Your task to perform on an android device: change the clock style Image 0: 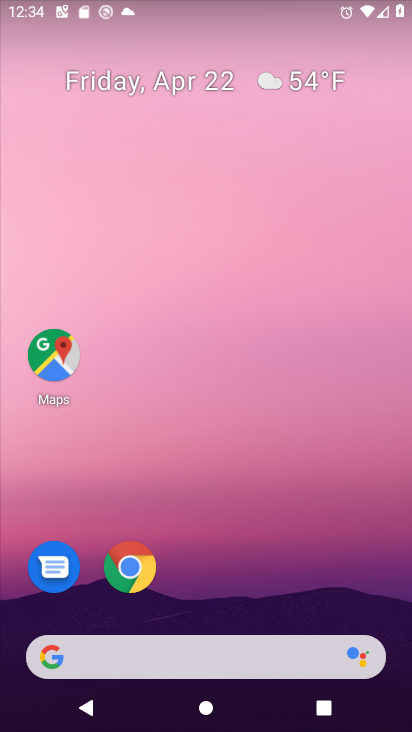
Step 0: drag from (230, 640) to (301, 41)
Your task to perform on an android device: change the clock style Image 1: 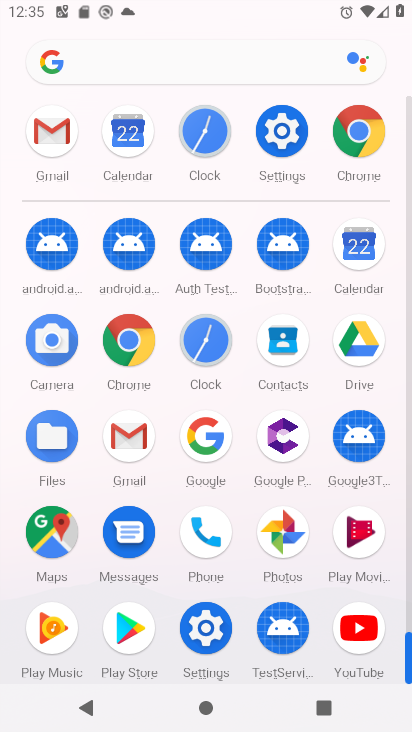
Step 1: click (215, 348)
Your task to perform on an android device: change the clock style Image 2: 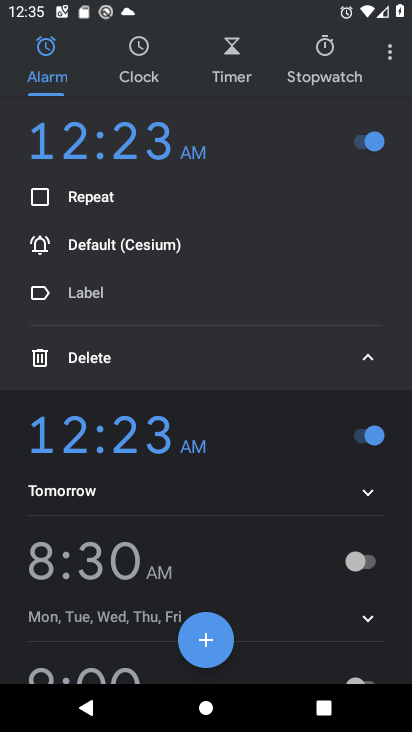
Step 2: click (393, 55)
Your task to perform on an android device: change the clock style Image 3: 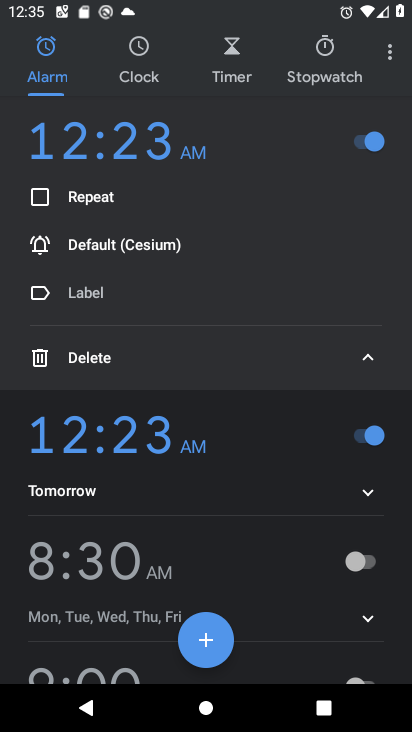
Step 3: click (396, 58)
Your task to perform on an android device: change the clock style Image 4: 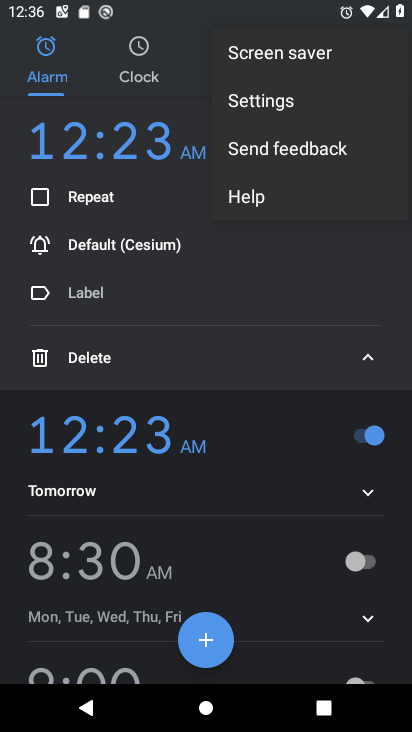
Step 4: click (306, 100)
Your task to perform on an android device: change the clock style Image 5: 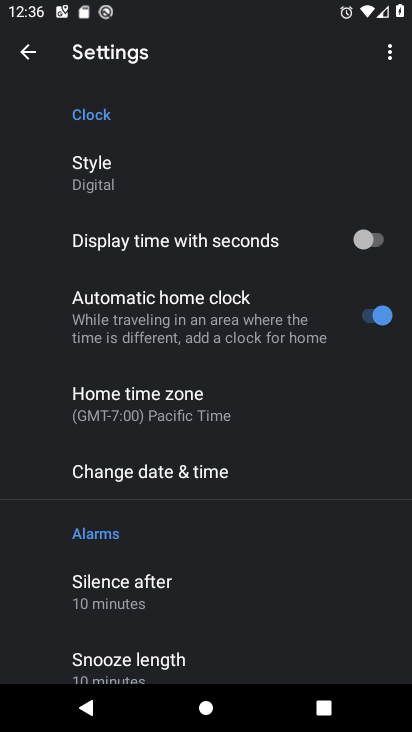
Step 5: click (169, 183)
Your task to perform on an android device: change the clock style Image 6: 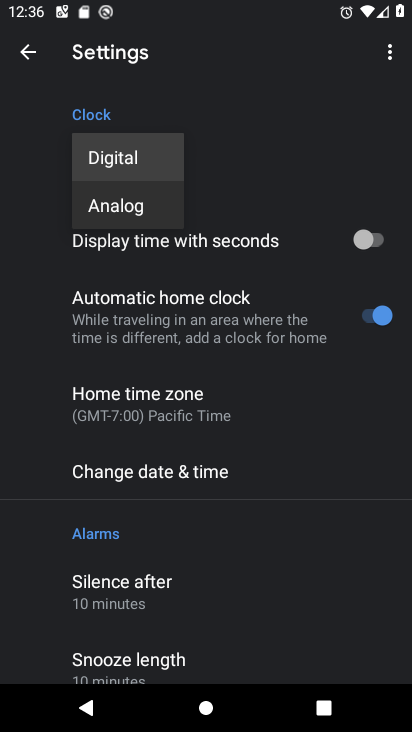
Step 6: click (140, 209)
Your task to perform on an android device: change the clock style Image 7: 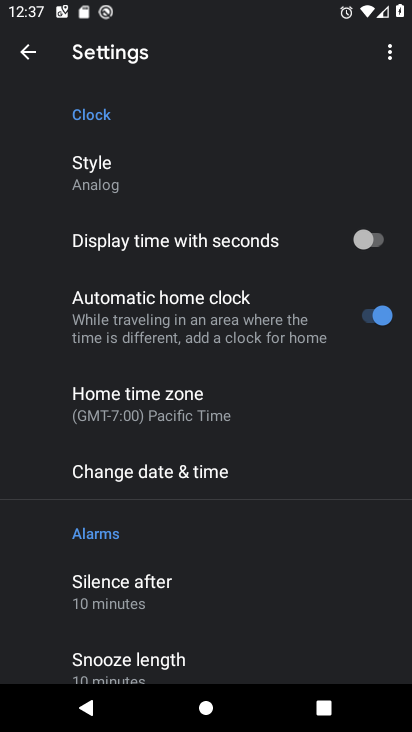
Step 7: task complete